Your task to perform on an android device: Clear the cart on costco. Add lg ultragear to the cart on costco, then select checkout. Image 0: 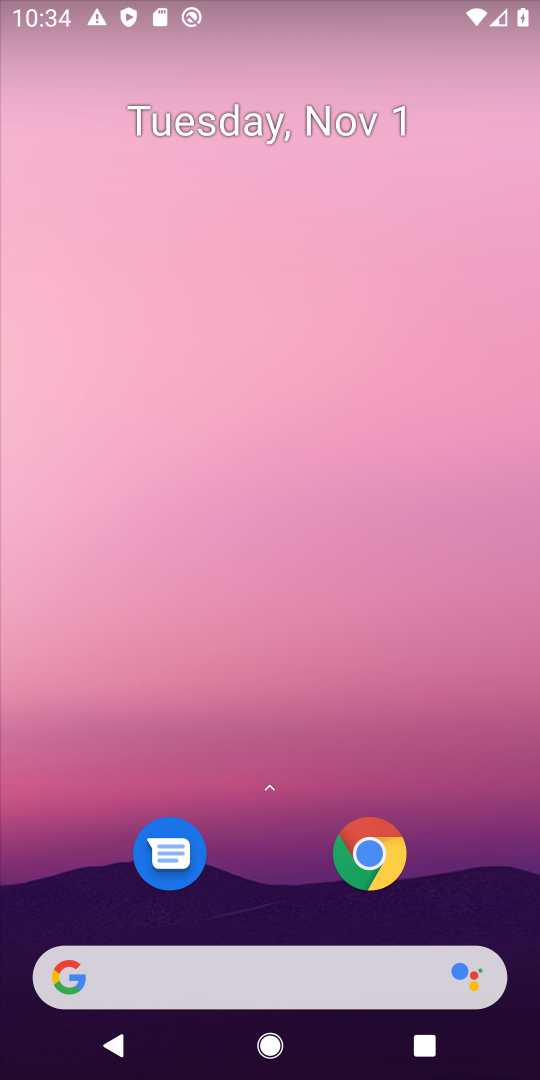
Step 0: click (260, 991)
Your task to perform on an android device: Clear the cart on costco. Add lg ultragear to the cart on costco, then select checkout. Image 1: 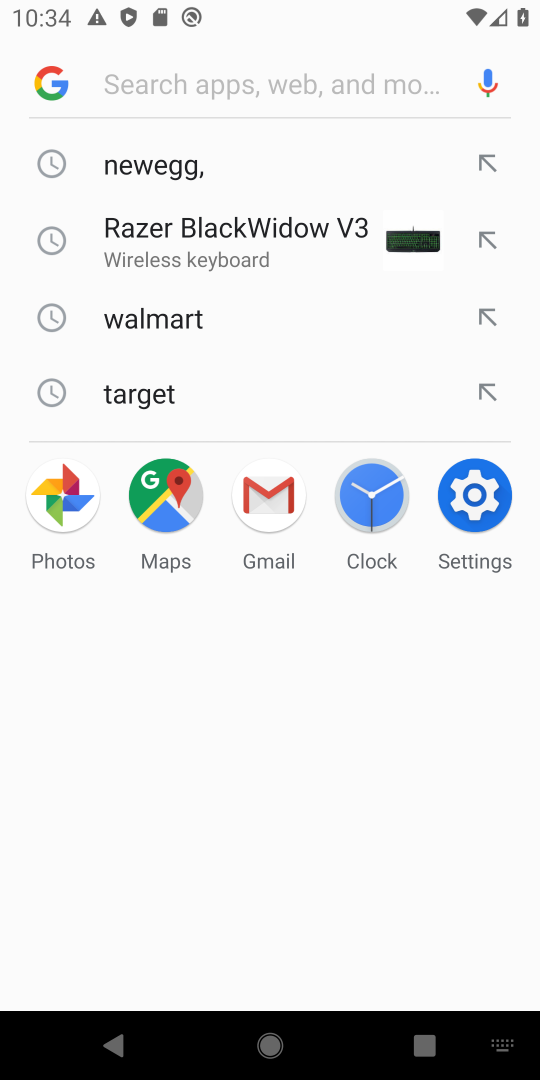
Step 1: type "costco"
Your task to perform on an android device: Clear the cart on costco. Add lg ultragear to the cart on costco, then select checkout. Image 2: 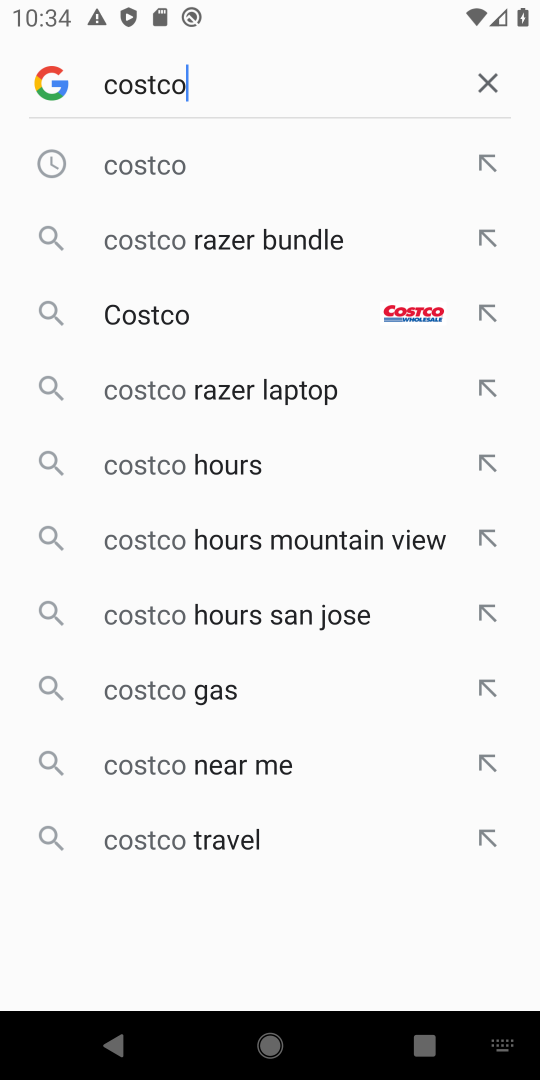
Step 2: click (238, 164)
Your task to perform on an android device: Clear the cart on costco. Add lg ultragear to the cart on costco, then select checkout. Image 3: 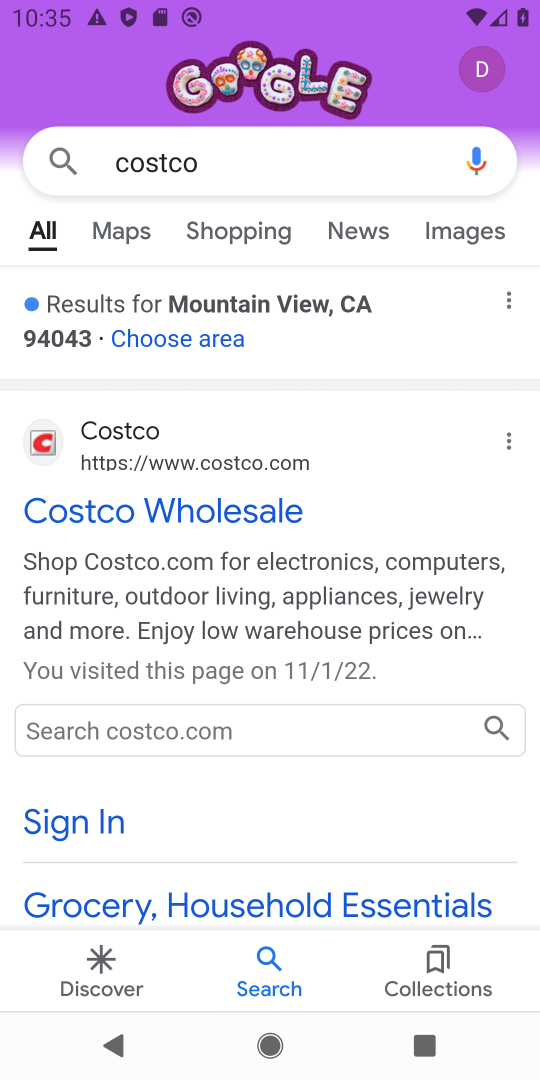
Step 3: click (146, 454)
Your task to perform on an android device: Clear the cart on costco. Add lg ultragear to the cart on costco, then select checkout. Image 4: 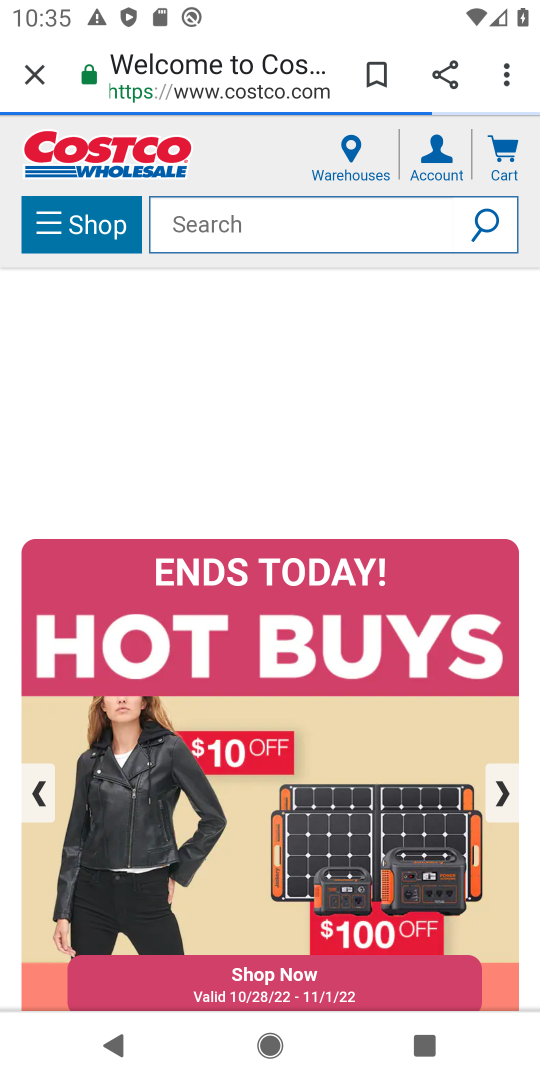
Step 4: click (276, 237)
Your task to perform on an android device: Clear the cart on costco. Add lg ultragear to the cart on costco, then select checkout. Image 5: 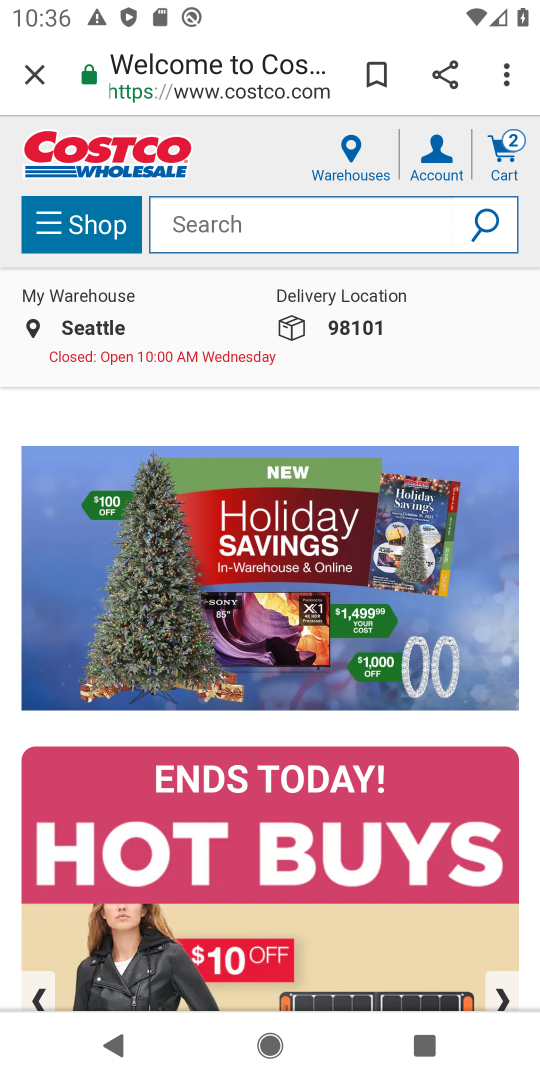
Step 5: type "lg ultragear"
Your task to perform on an android device: Clear the cart on costco. Add lg ultragear to the cart on costco, then select checkout. Image 6: 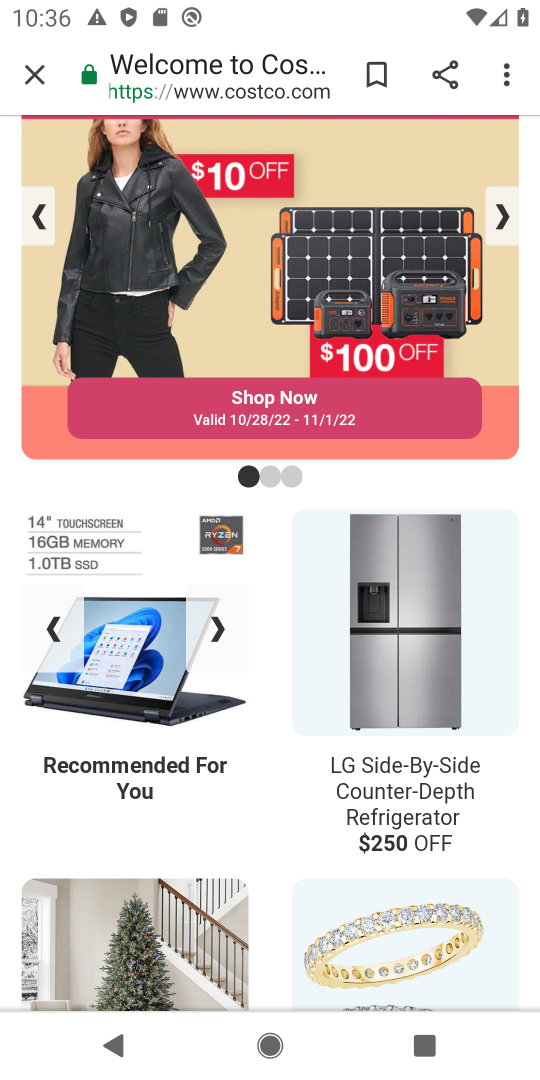
Step 6: task complete